Your task to perform on an android device: turn off location Image 0: 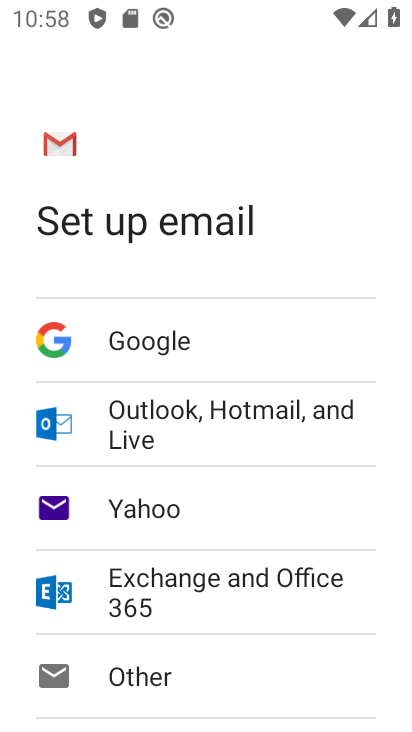
Step 0: press back button
Your task to perform on an android device: turn off location Image 1: 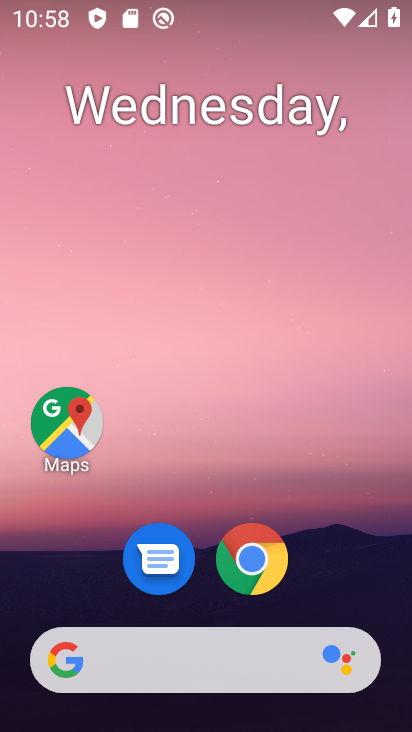
Step 1: drag from (184, 594) to (242, 22)
Your task to perform on an android device: turn off location Image 2: 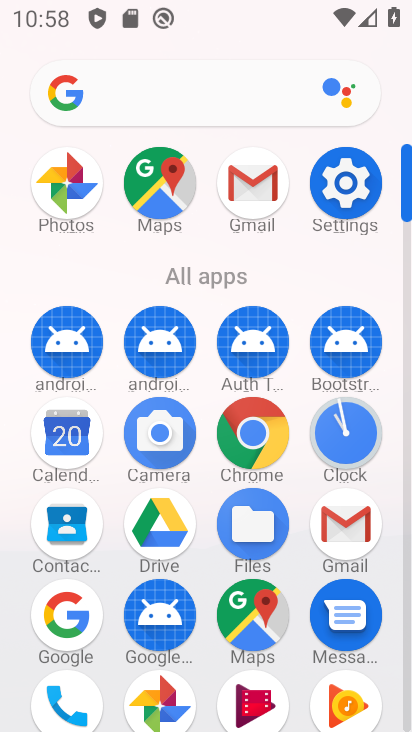
Step 2: click (341, 166)
Your task to perform on an android device: turn off location Image 3: 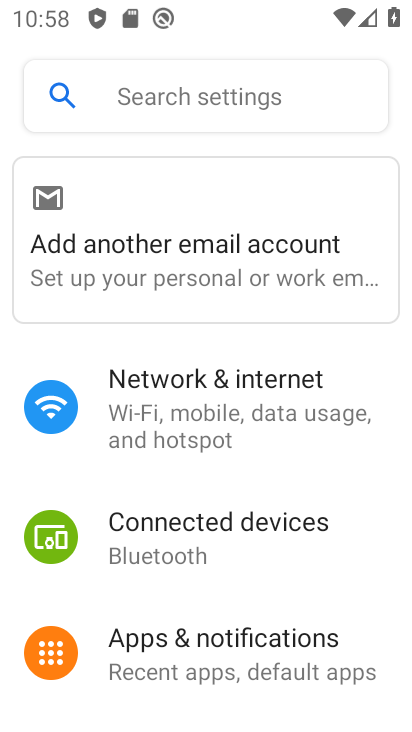
Step 3: drag from (176, 611) to (293, 81)
Your task to perform on an android device: turn off location Image 4: 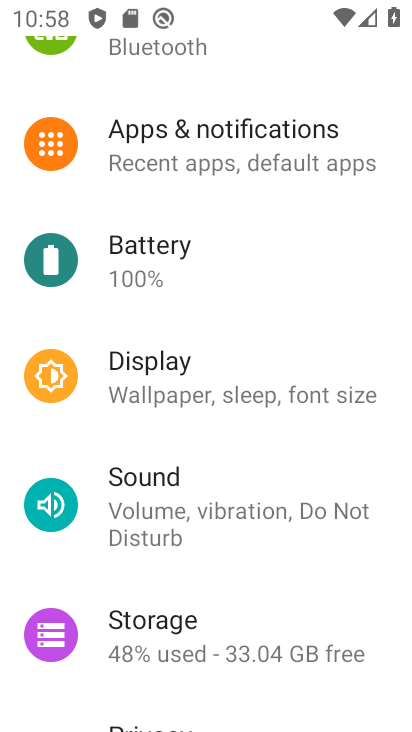
Step 4: drag from (158, 618) to (270, 244)
Your task to perform on an android device: turn off location Image 5: 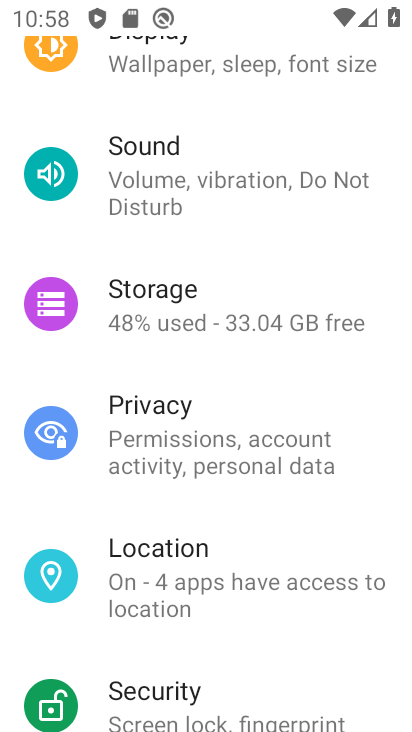
Step 5: click (193, 558)
Your task to perform on an android device: turn off location Image 6: 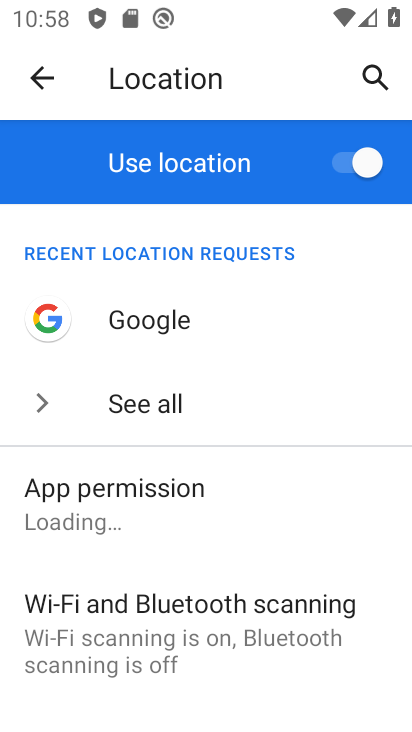
Step 6: click (368, 165)
Your task to perform on an android device: turn off location Image 7: 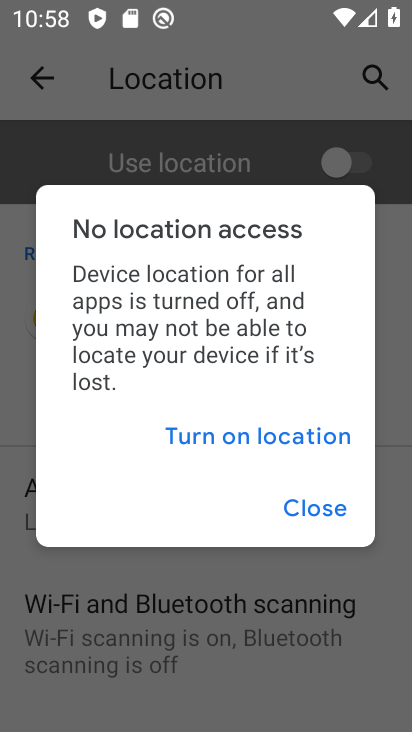
Step 7: click (335, 511)
Your task to perform on an android device: turn off location Image 8: 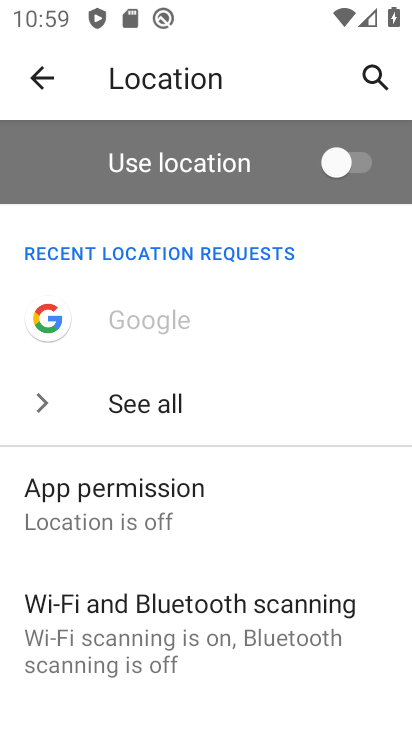
Step 8: task complete